Your task to perform on an android device: Clear the shopping cart on costco. Add "razer blade" to the cart on costco, then select checkout. Image 0: 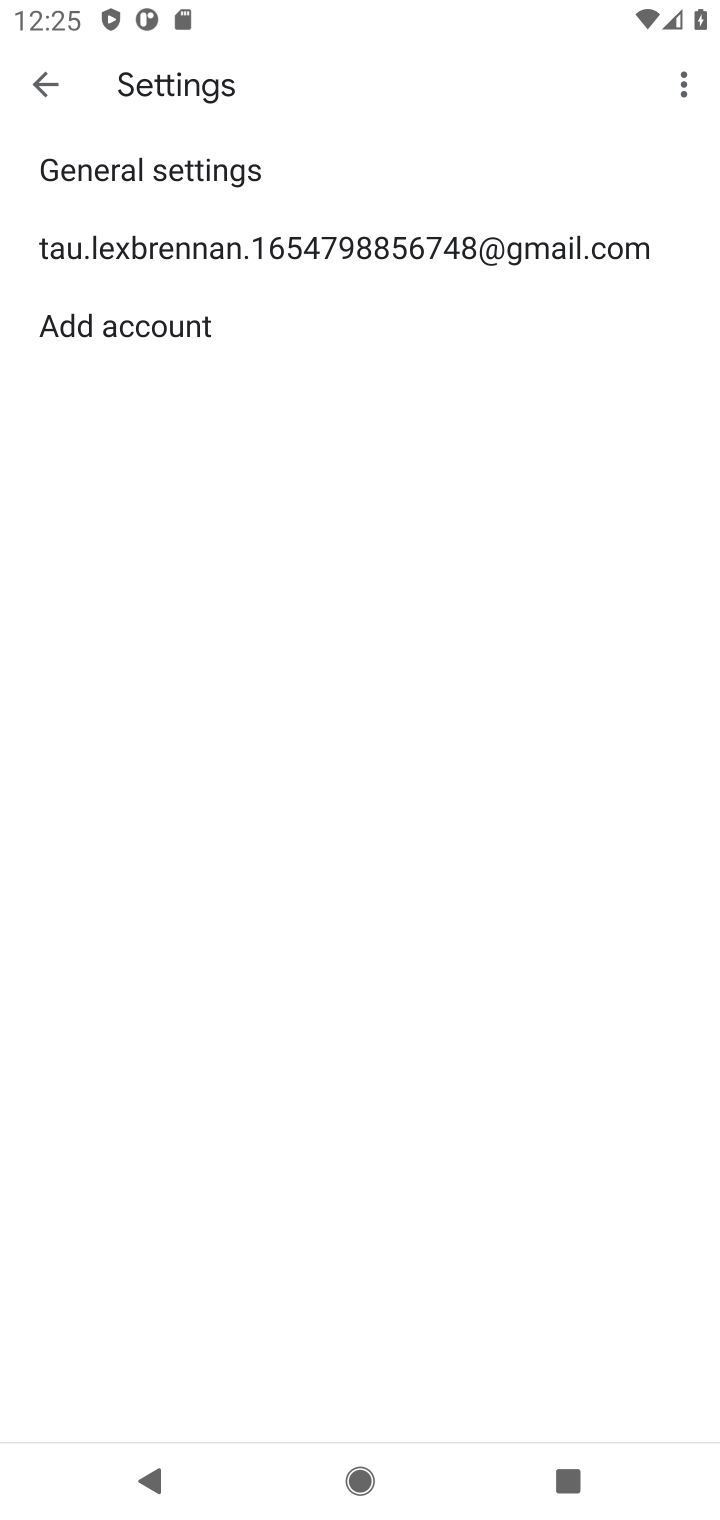
Step 0: press home button
Your task to perform on an android device: Clear the shopping cart on costco. Add "razer blade" to the cart on costco, then select checkout. Image 1: 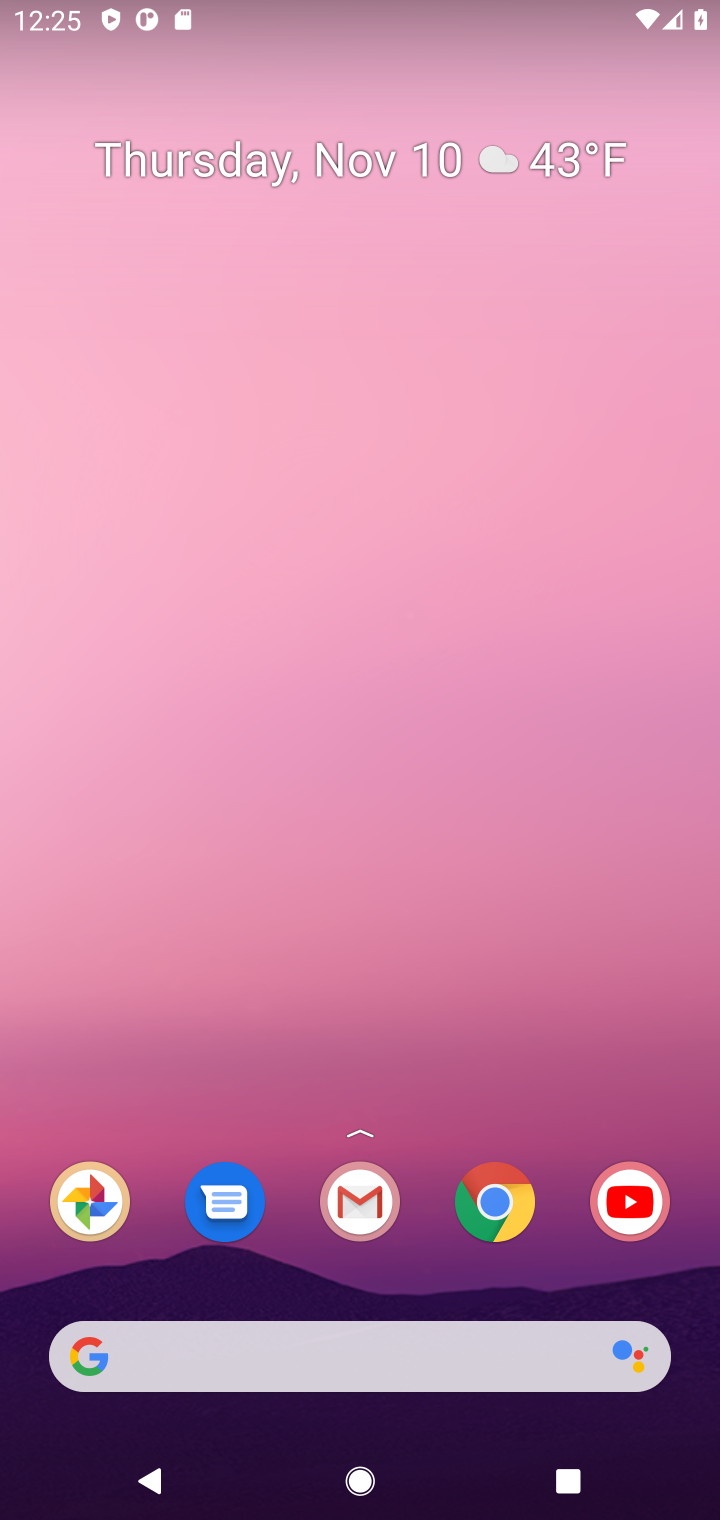
Step 1: click (496, 1216)
Your task to perform on an android device: Clear the shopping cart on costco. Add "razer blade" to the cart on costco, then select checkout. Image 2: 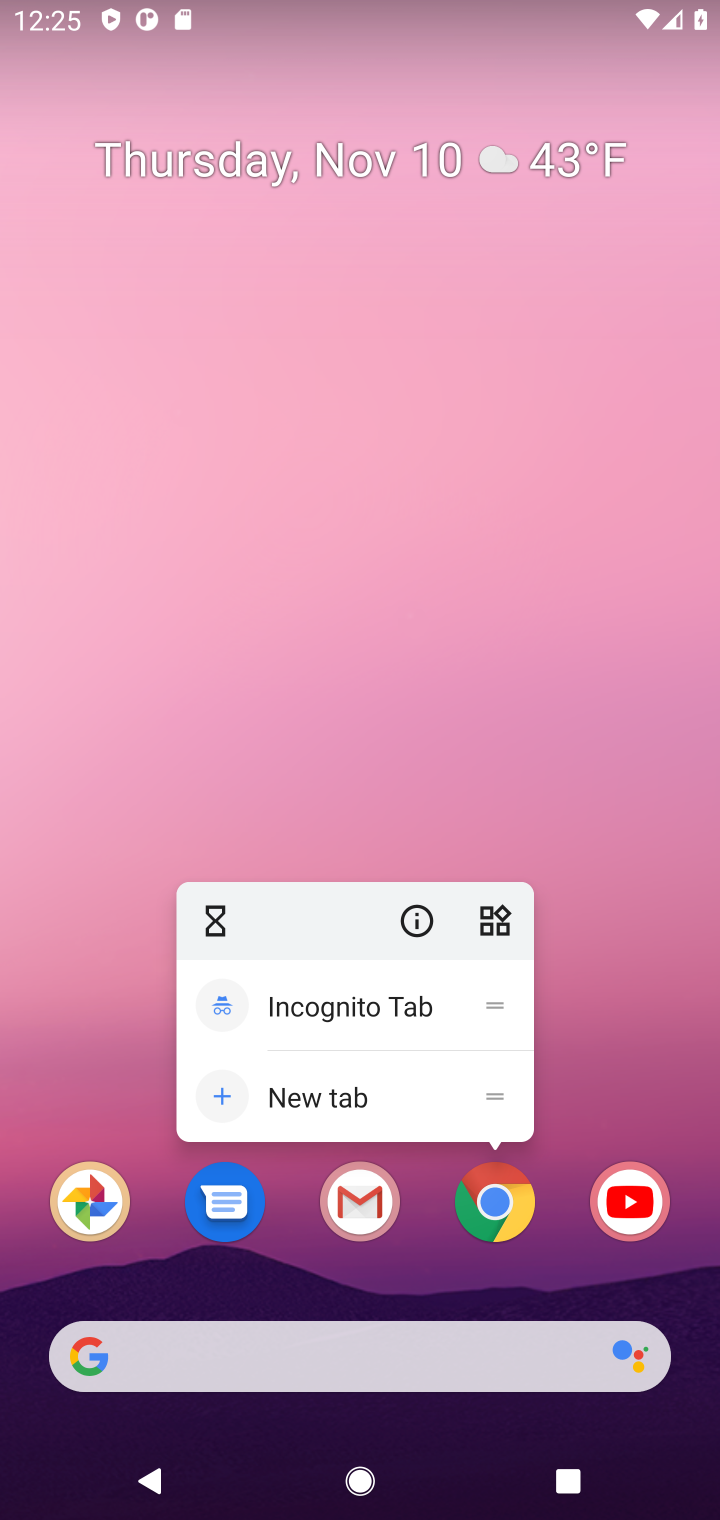
Step 2: click (496, 1216)
Your task to perform on an android device: Clear the shopping cart on costco. Add "razer blade" to the cart on costco, then select checkout. Image 3: 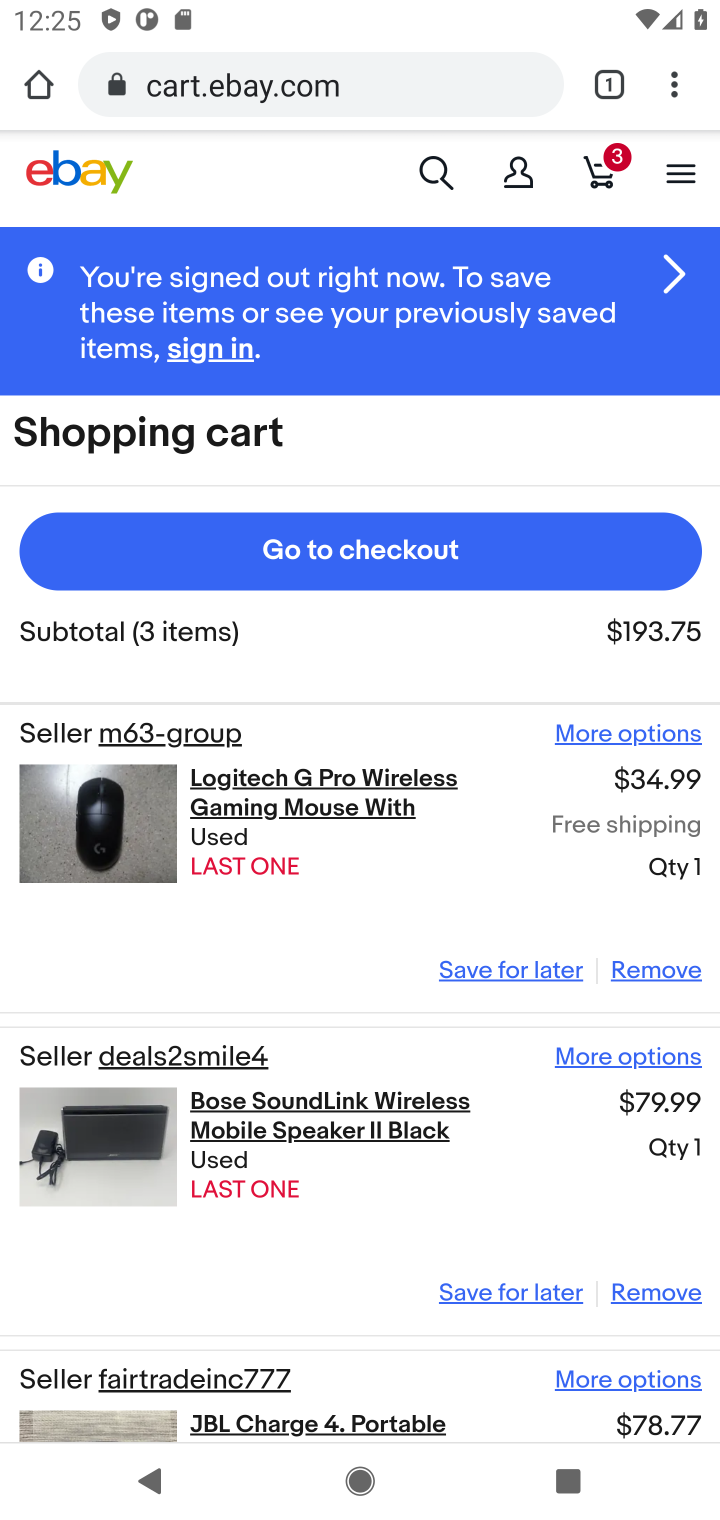
Step 3: click (47, 97)
Your task to perform on an android device: Clear the shopping cart on costco. Add "razer blade" to the cart on costco, then select checkout. Image 4: 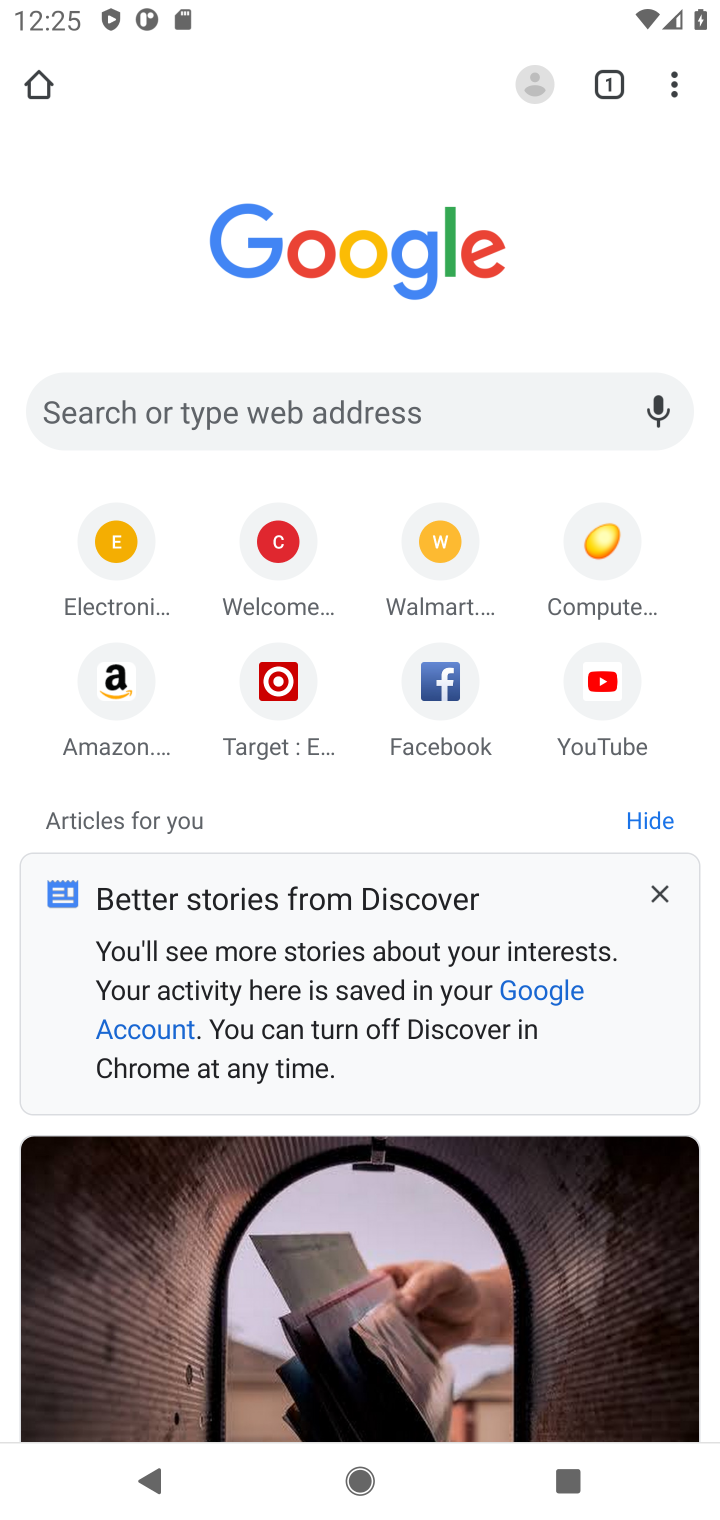
Step 4: click (488, 402)
Your task to perform on an android device: Clear the shopping cart on costco. Add "razer blade" to the cart on costco, then select checkout. Image 5: 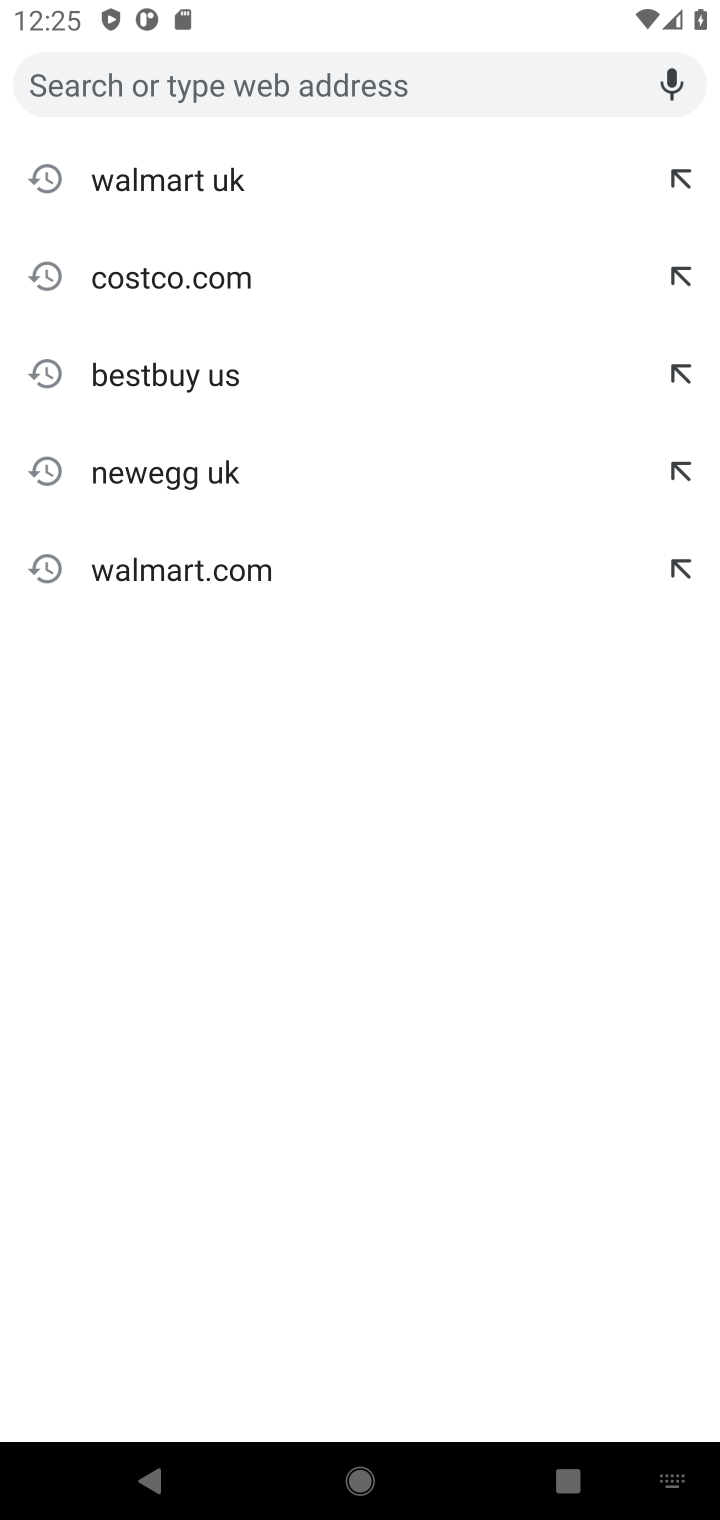
Step 5: click (140, 278)
Your task to perform on an android device: Clear the shopping cart on costco. Add "razer blade" to the cart on costco, then select checkout. Image 6: 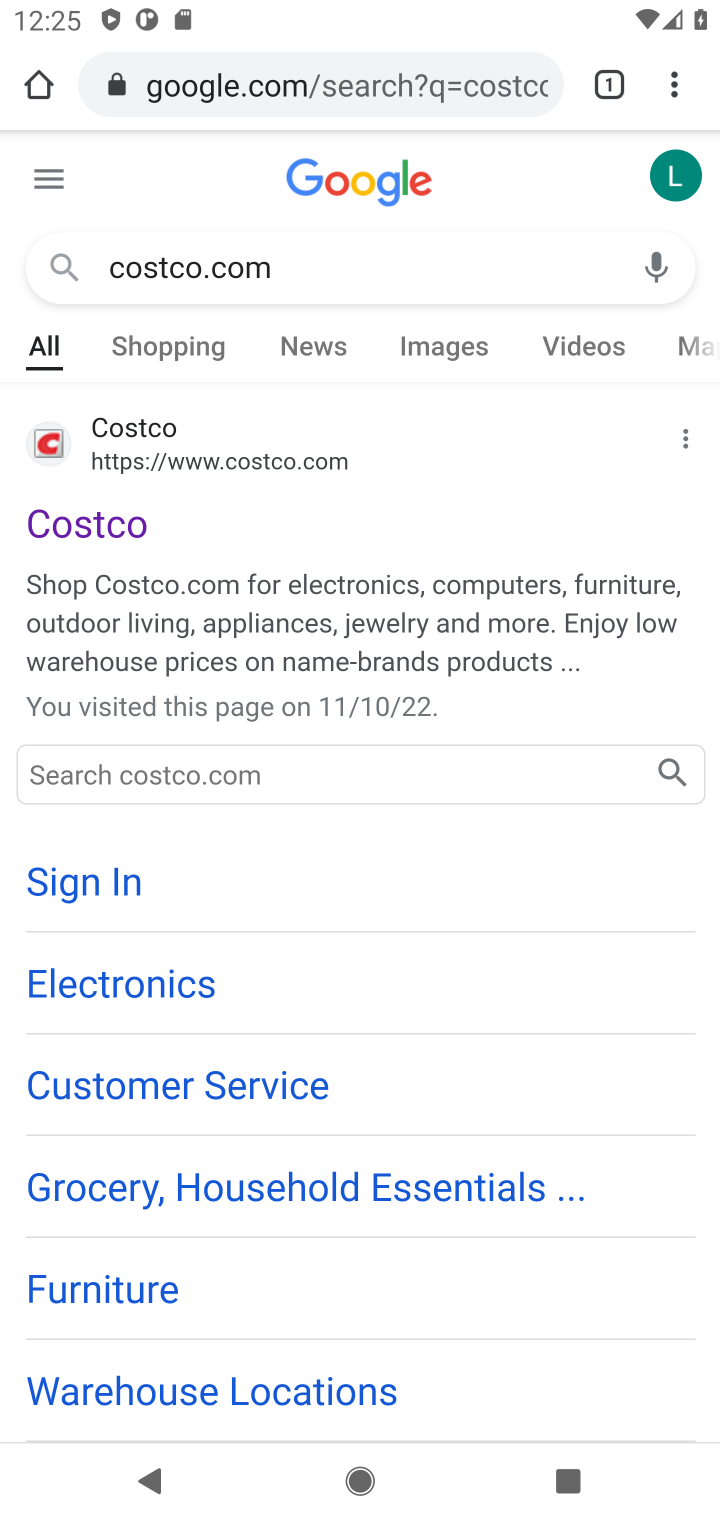
Step 6: click (298, 455)
Your task to perform on an android device: Clear the shopping cart on costco. Add "razer blade" to the cart on costco, then select checkout. Image 7: 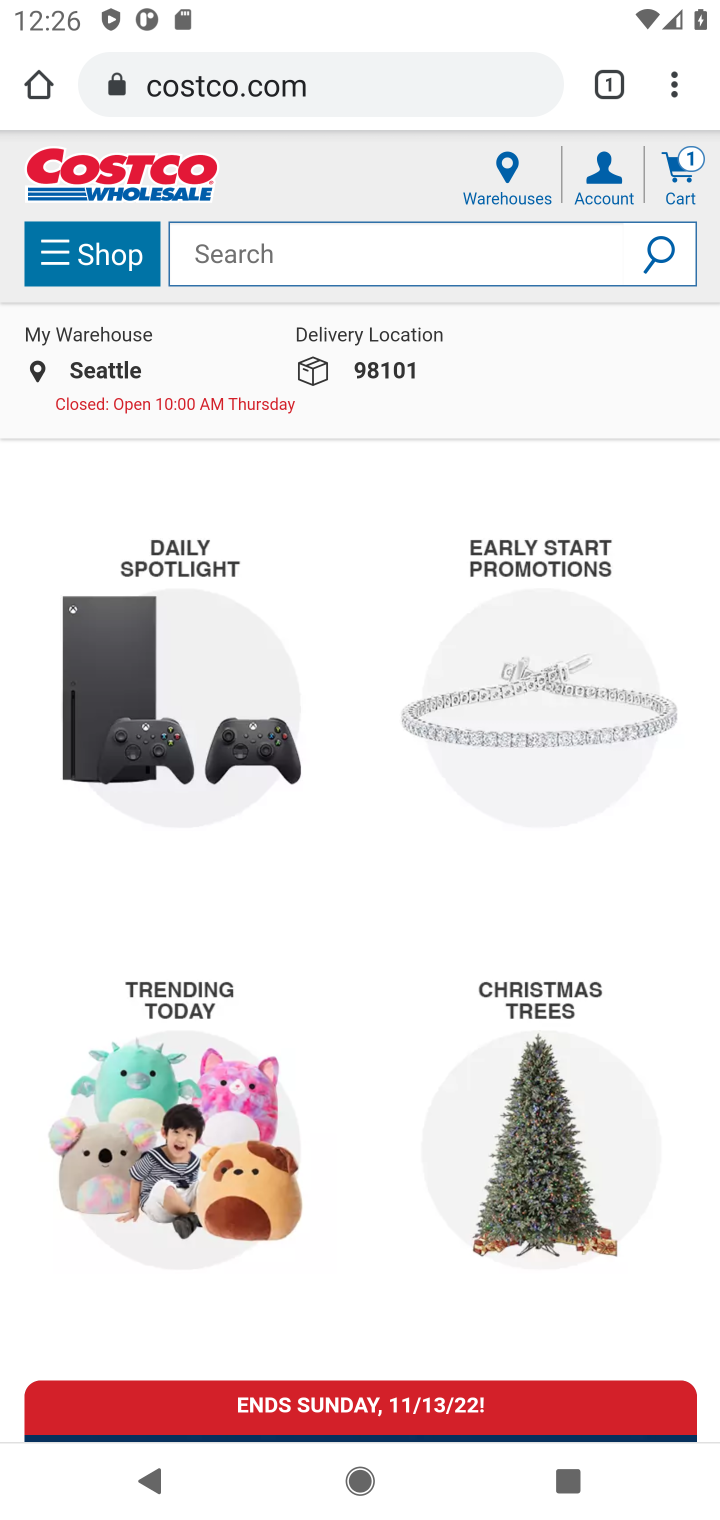
Step 7: click (687, 180)
Your task to perform on an android device: Clear the shopping cart on costco. Add "razer blade" to the cart on costco, then select checkout. Image 8: 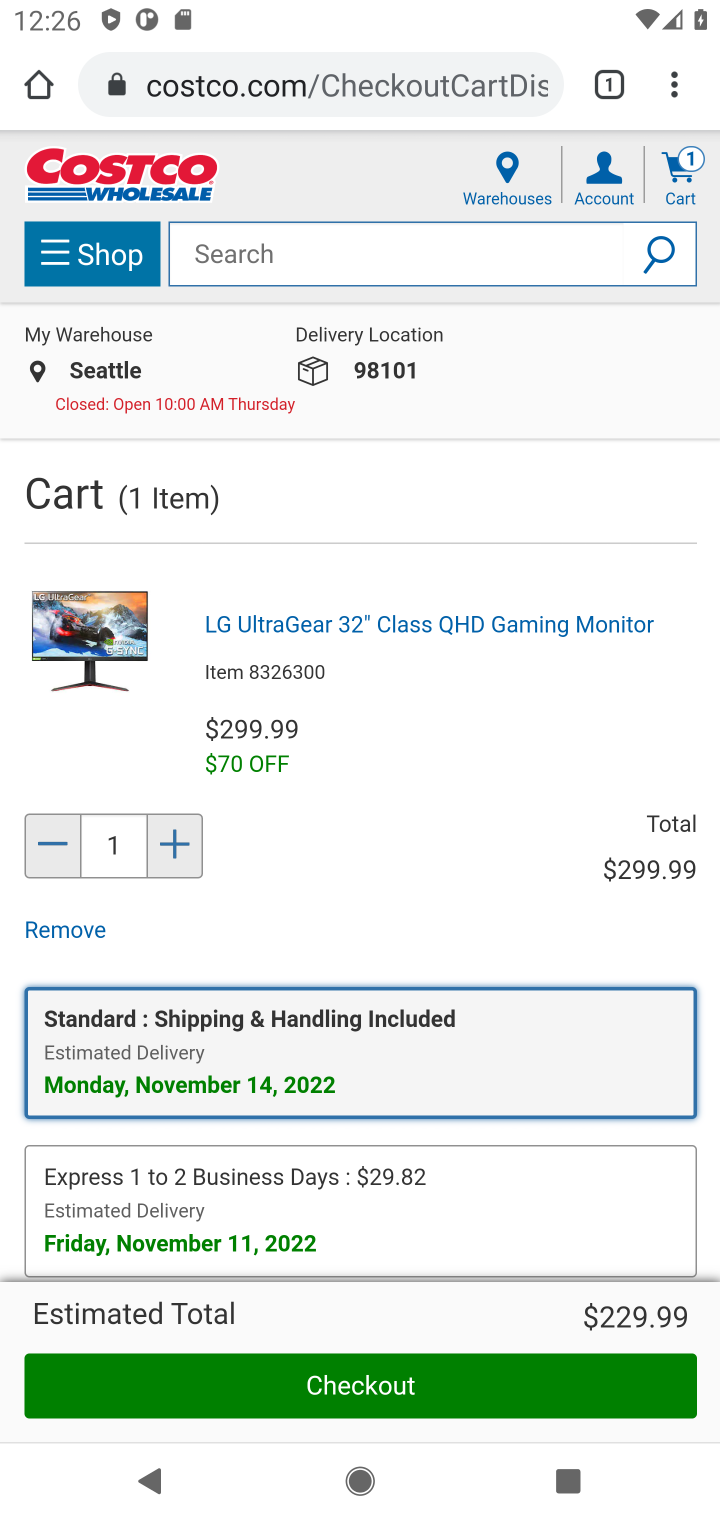
Step 8: click (56, 850)
Your task to perform on an android device: Clear the shopping cart on costco. Add "razer blade" to the cart on costco, then select checkout. Image 9: 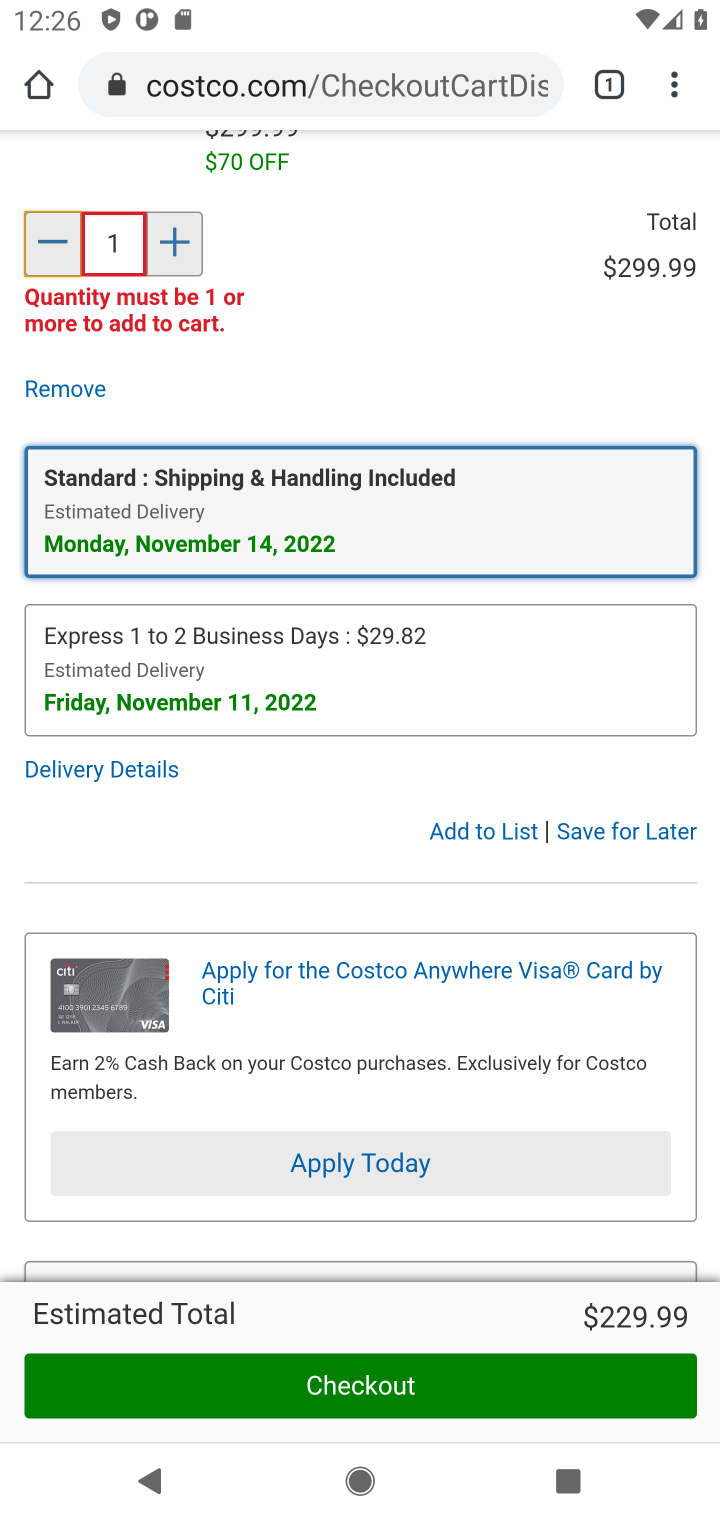
Step 9: click (54, 255)
Your task to perform on an android device: Clear the shopping cart on costco. Add "razer blade" to the cart on costco, then select checkout. Image 10: 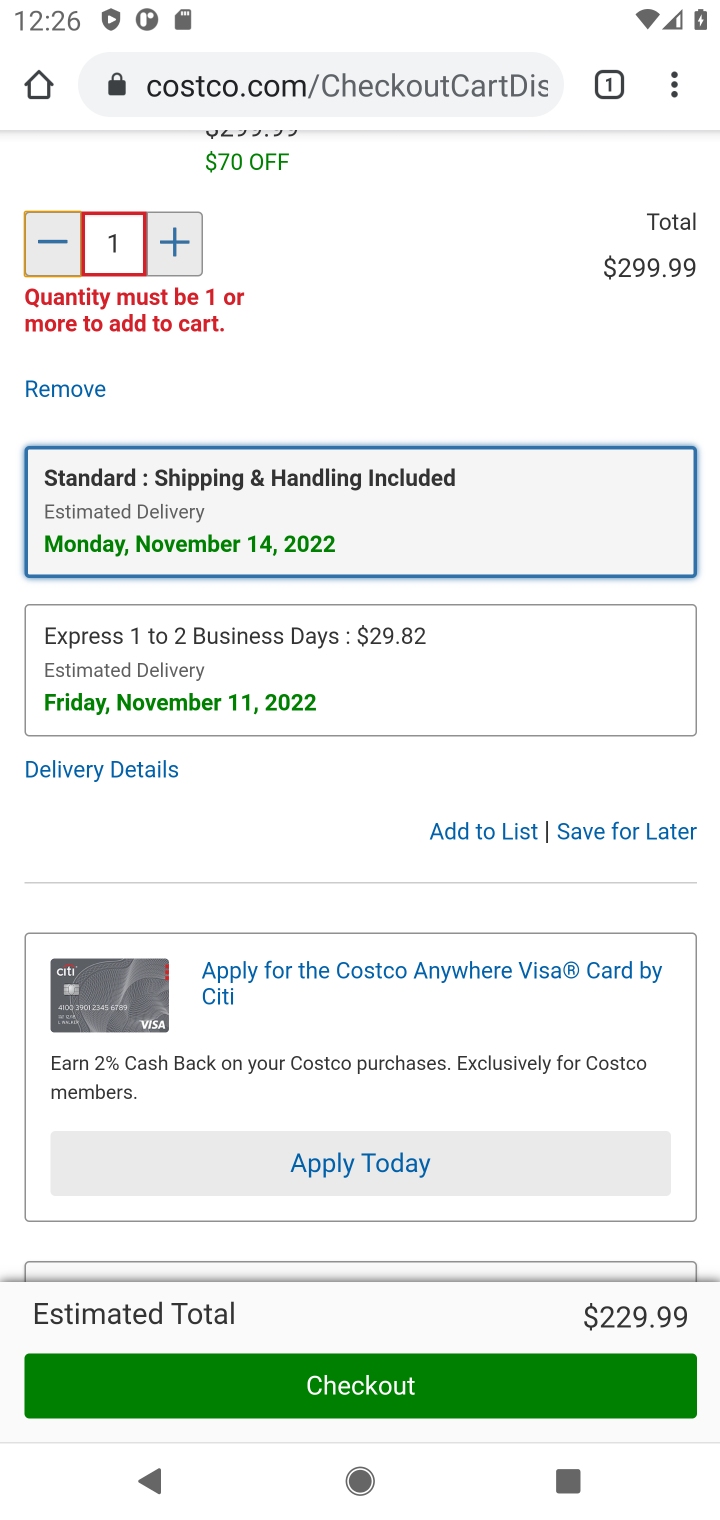
Step 10: drag from (480, 315) to (580, 1170)
Your task to perform on an android device: Clear the shopping cart on costco. Add "razer blade" to the cart on costco, then select checkout. Image 11: 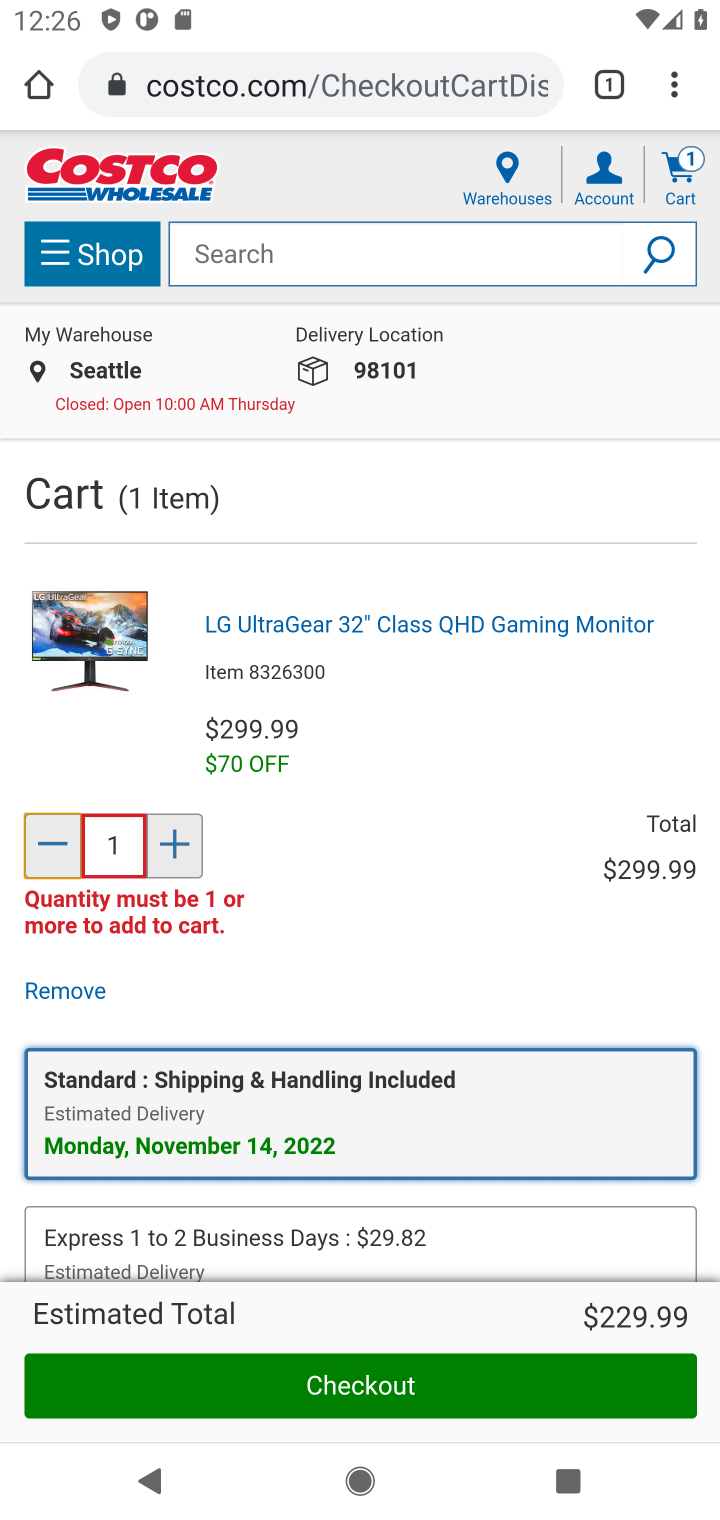
Step 11: click (49, 490)
Your task to perform on an android device: Clear the shopping cart on costco. Add "razer blade" to the cart on costco, then select checkout. Image 12: 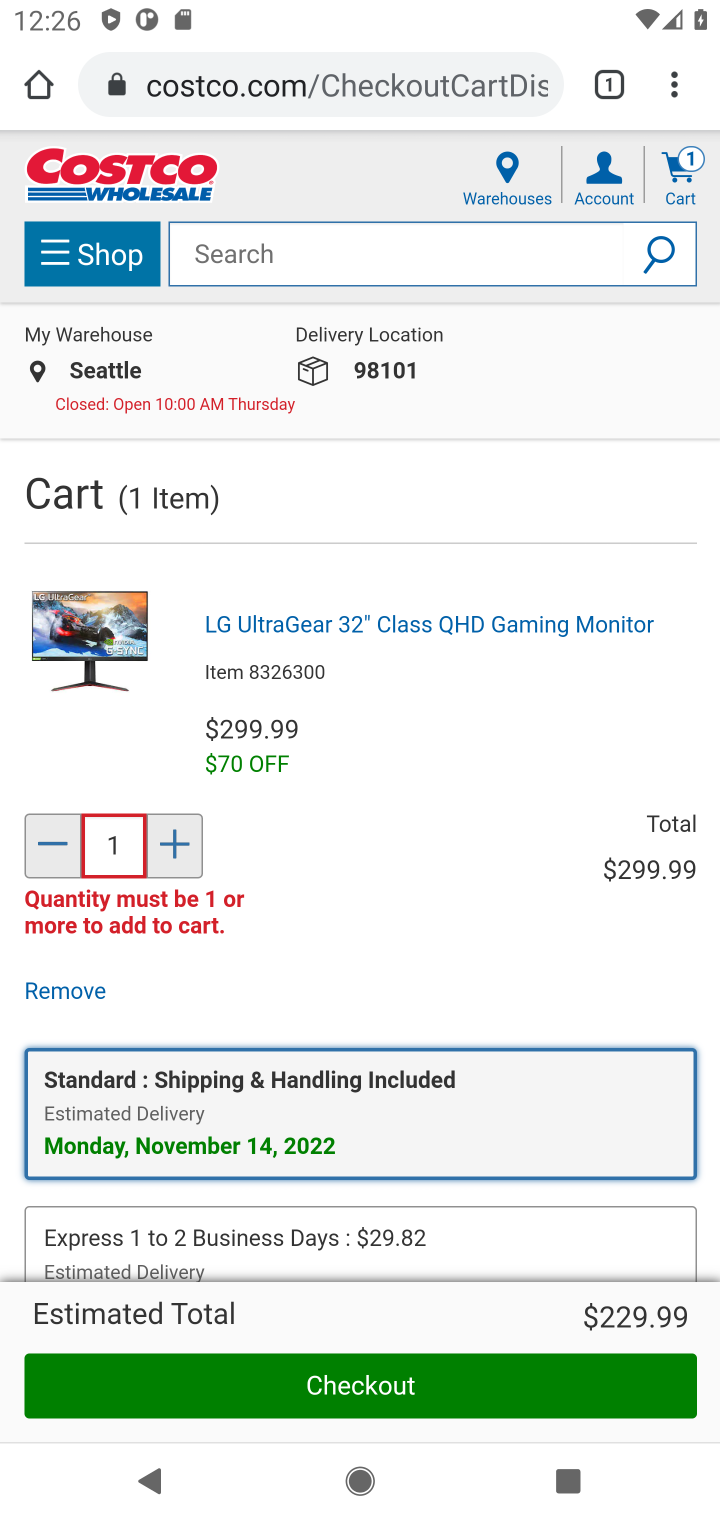
Step 12: click (55, 983)
Your task to perform on an android device: Clear the shopping cart on costco. Add "razer blade" to the cart on costco, then select checkout. Image 13: 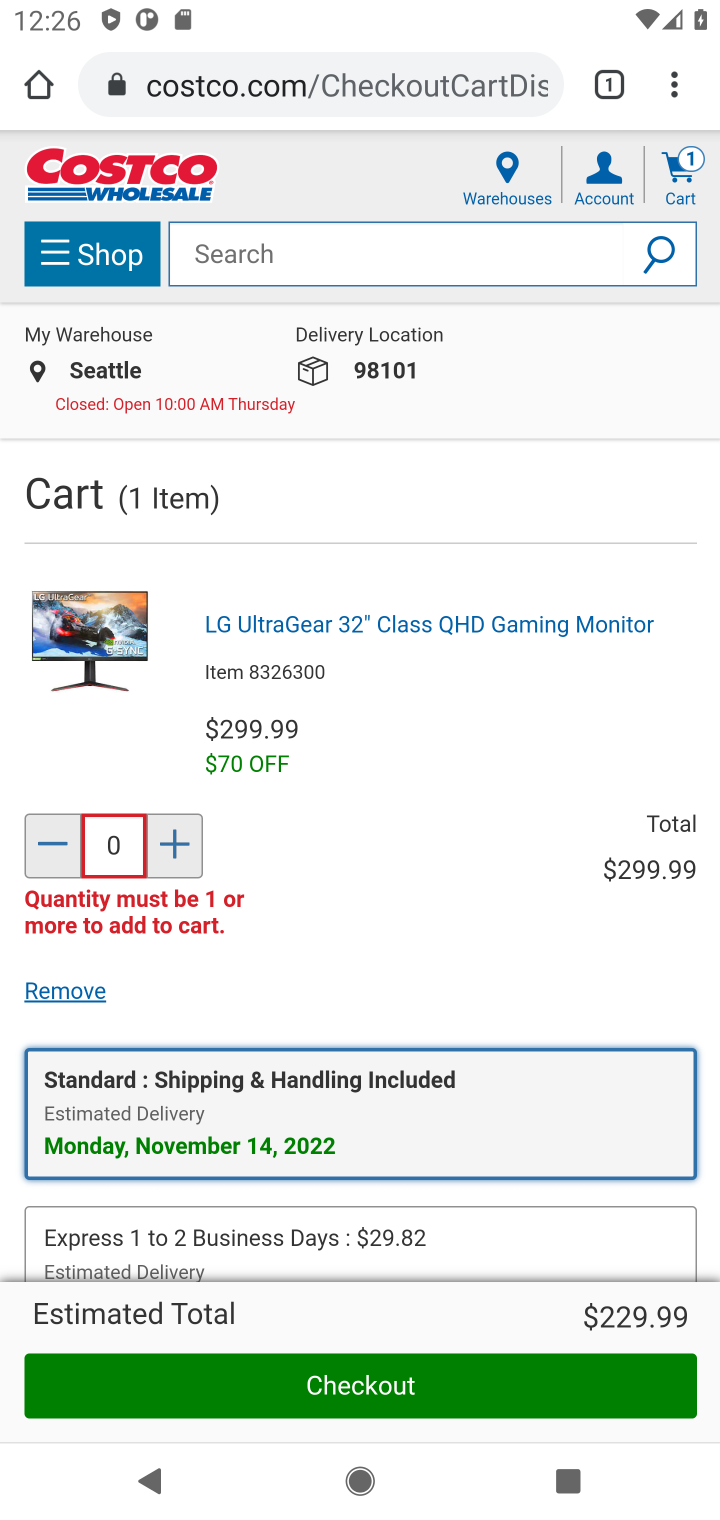
Step 13: click (67, 984)
Your task to perform on an android device: Clear the shopping cart on costco. Add "razer blade" to the cart on costco, then select checkout. Image 14: 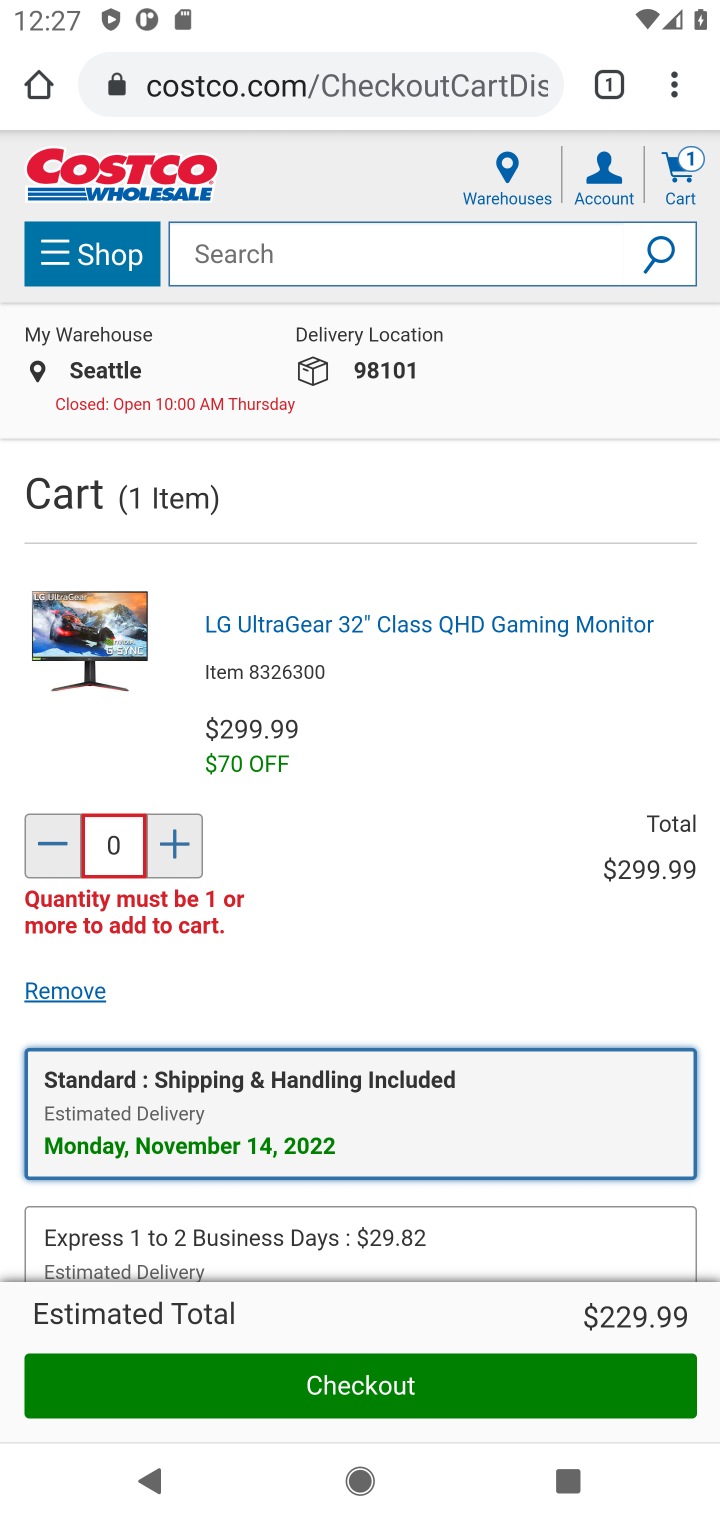
Step 14: click (89, 990)
Your task to perform on an android device: Clear the shopping cart on costco. Add "razer blade" to the cart on costco, then select checkout. Image 15: 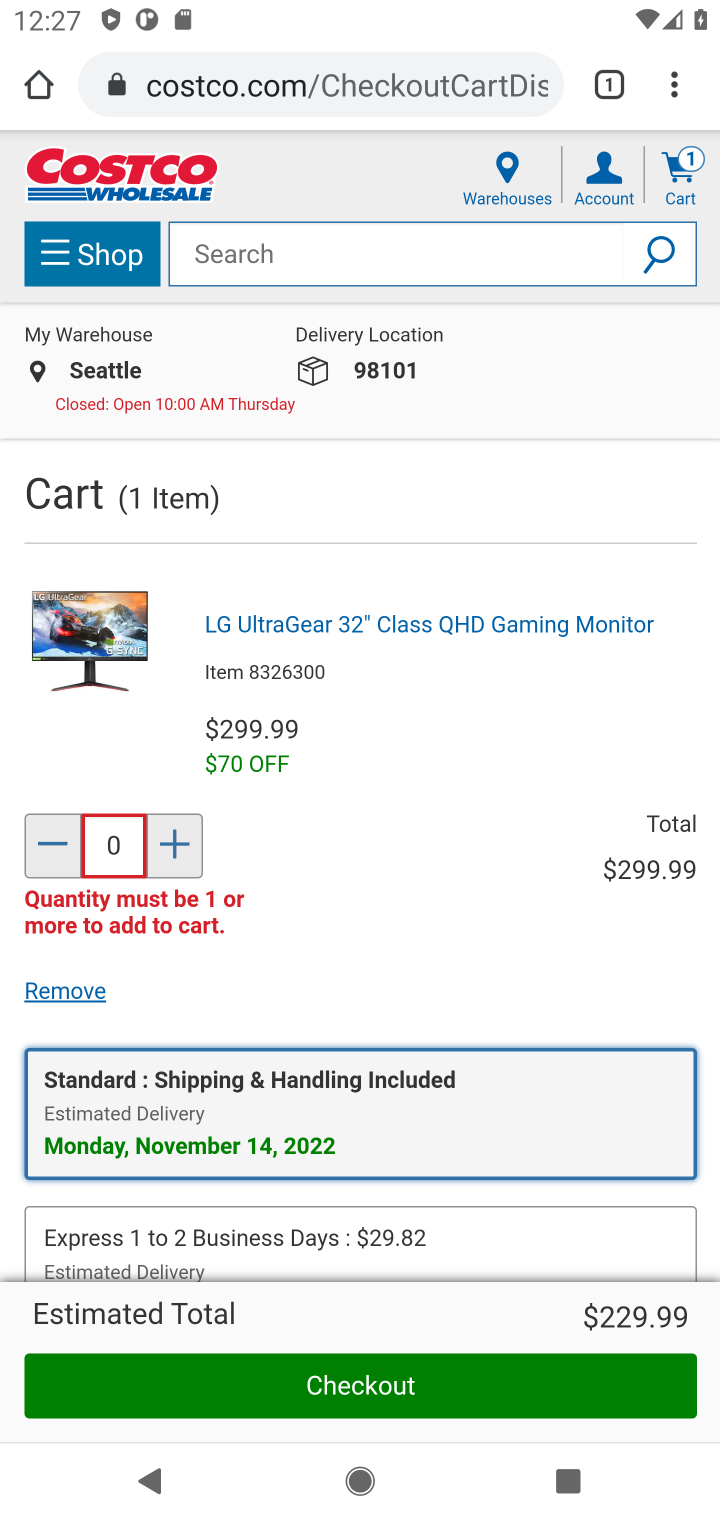
Step 15: click (173, 847)
Your task to perform on an android device: Clear the shopping cart on costco. Add "razer blade" to the cart on costco, then select checkout. Image 16: 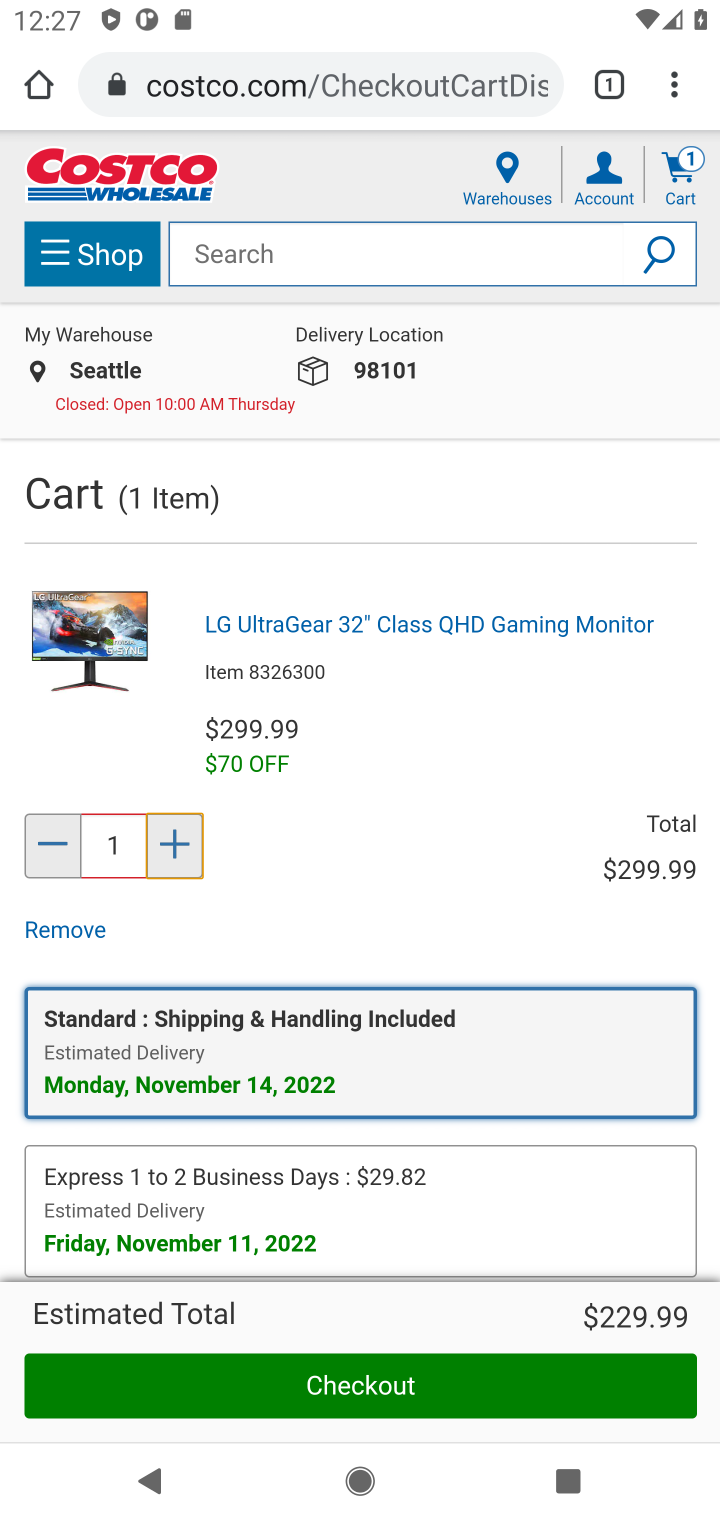
Step 16: click (183, 842)
Your task to perform on an android device: Clear the shopping cart on costco. Add "razer blade" to the cart on costco, then select checkout. Image 17: 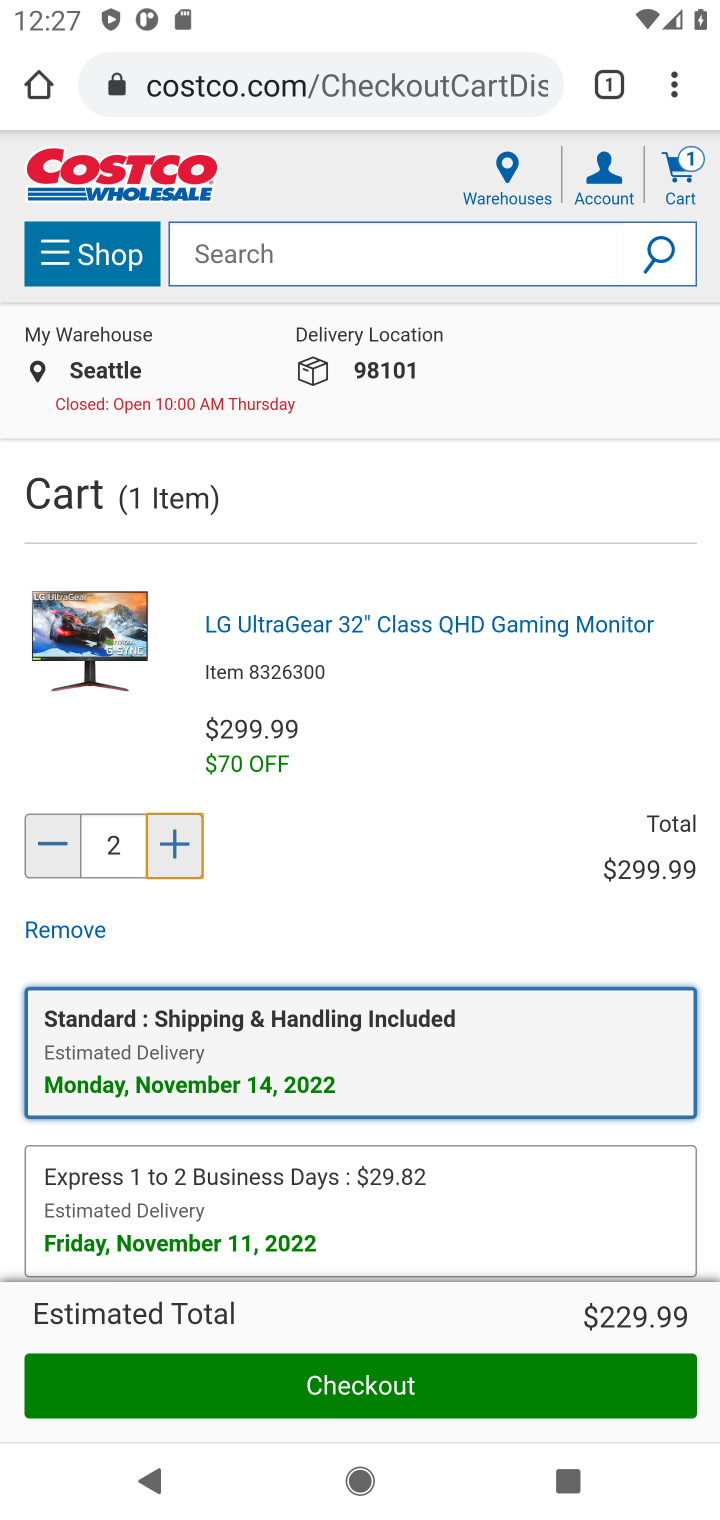
Step 17: click (52, 847)
Your task to perform on an android device: Clear the shopping cart on costco. Add "razer blade" to the cart on costco, then select checkout. Image 18: 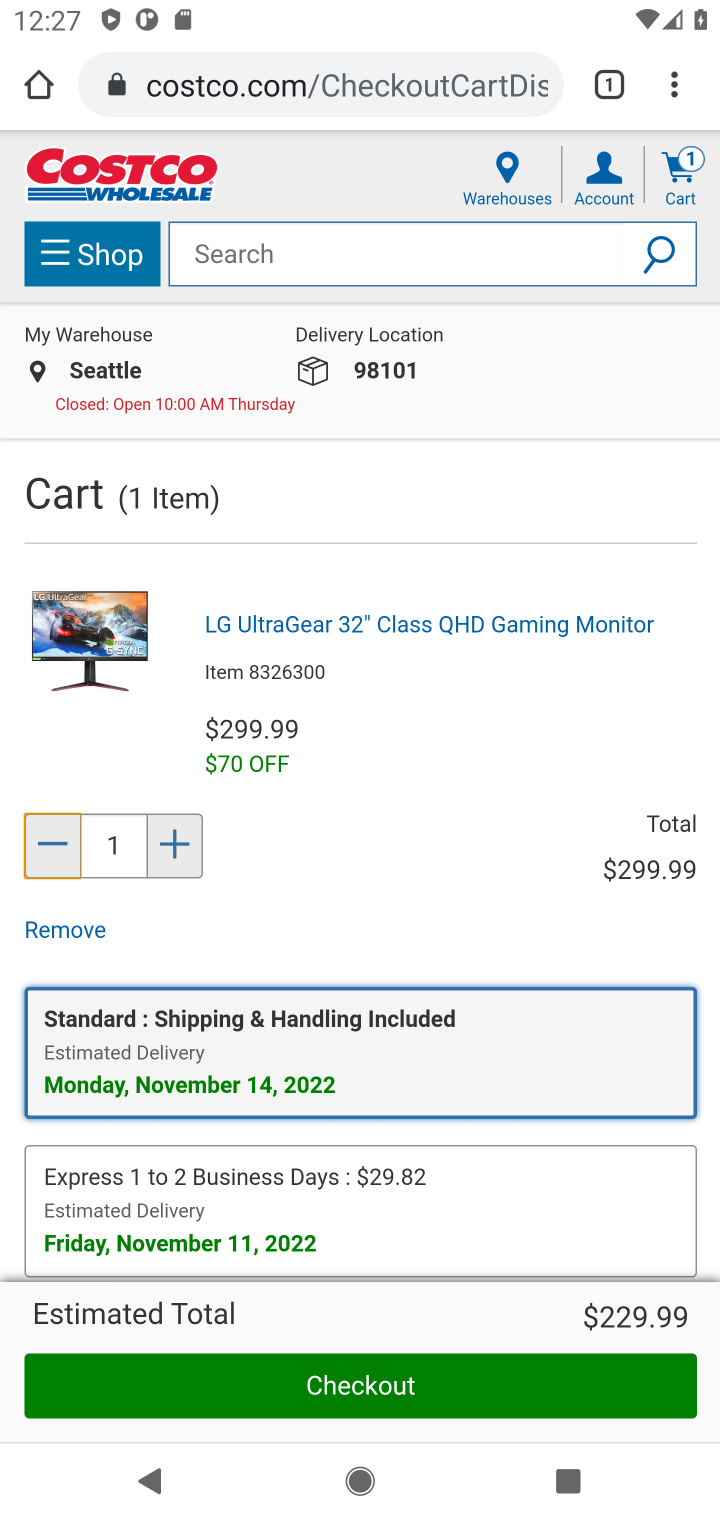
Step 18: click (75, 929)
Your task to perform on an android device: Clear the shopping cart on costco. Add "razer blade" to the cart on costco, then select checkout. Image 19: 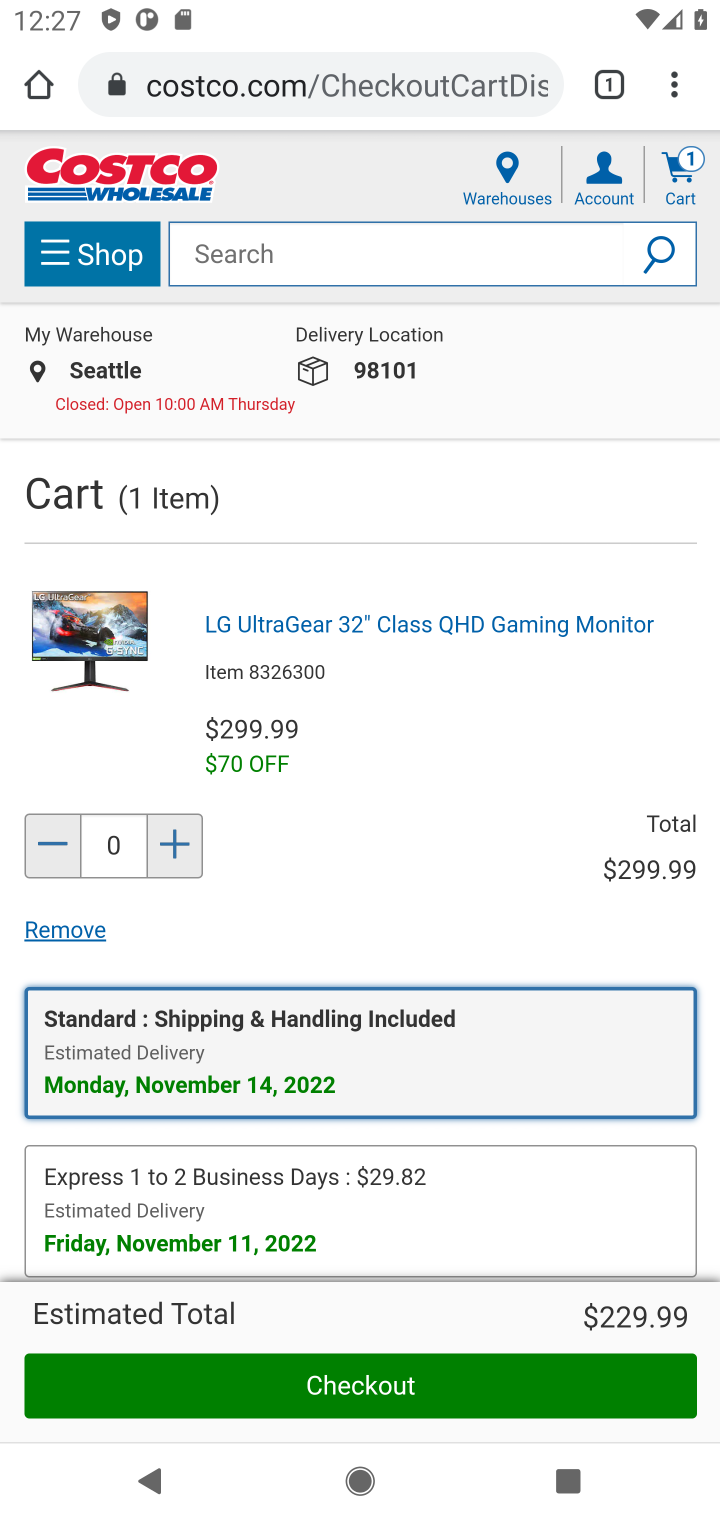
Step 19: click (75, 928)
Your task to perform on an android device: Clear the shopping cart on costco. Add "razer blade" to the cart on costco, then select checkout. Image 20: 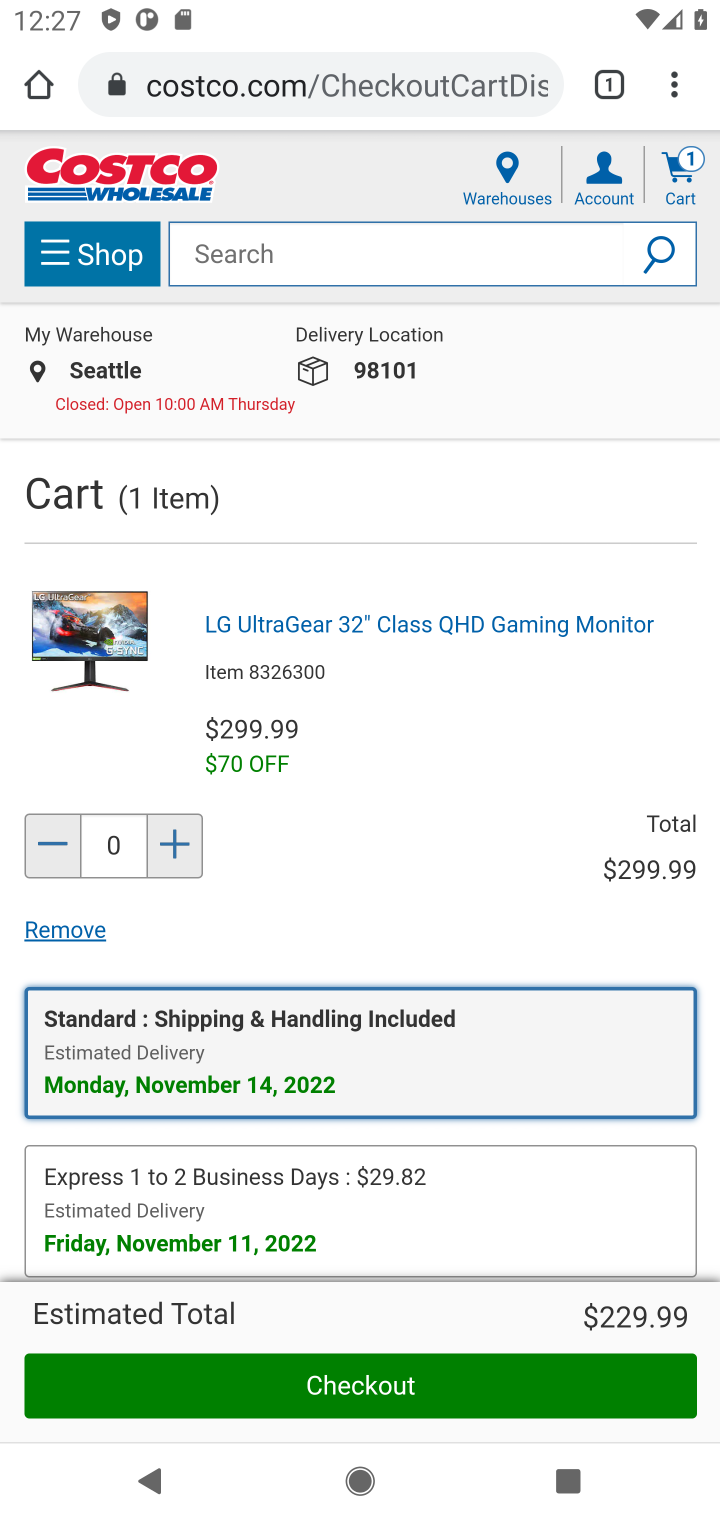
Step 20: click (75, 928)
Your task to perform on an android device: Clear the shopping cart on costco. Add "razer blade" to the cart on costco, then select checkout. Image 21: 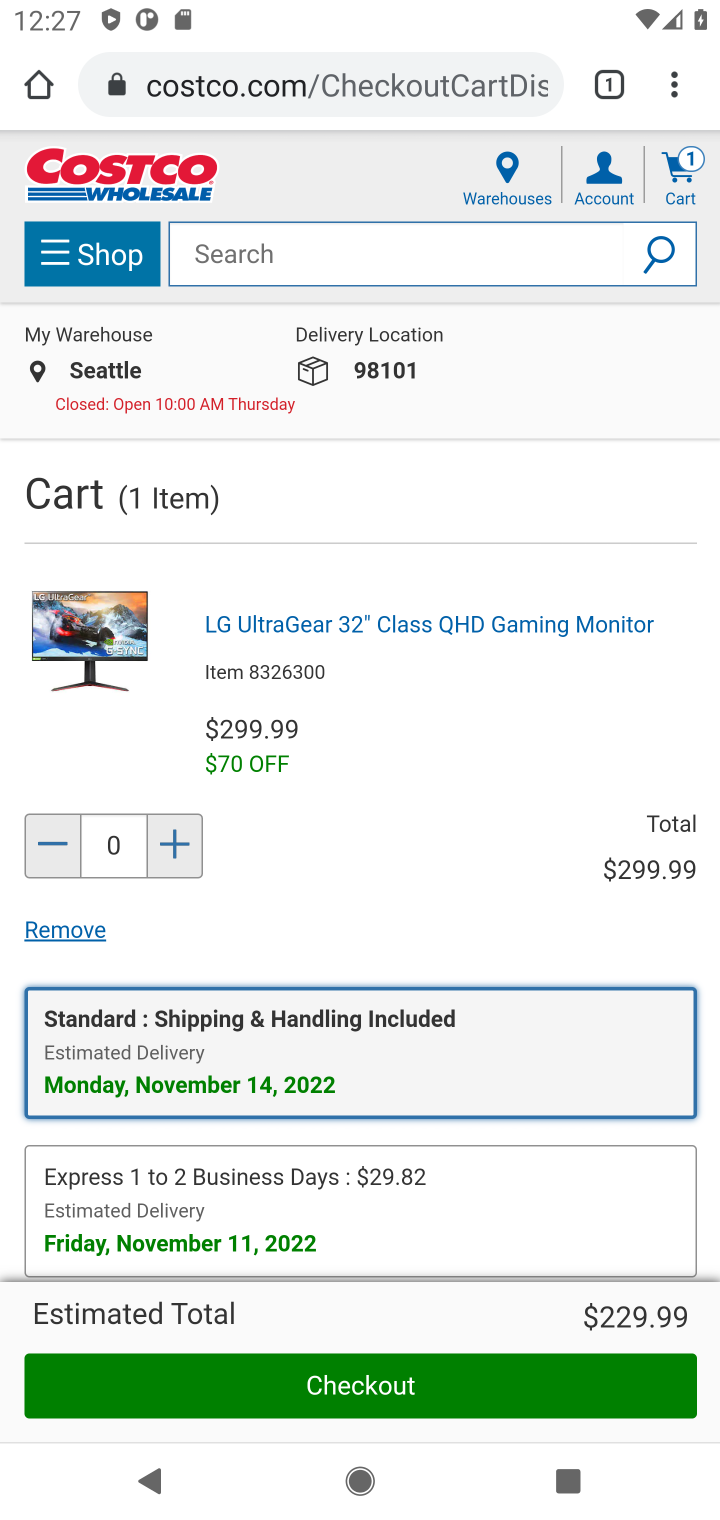
Step 21: click (75, 928)
Your task to perform on an android device: Clear the shopping cart on costco. Add "razer blade" to the cart on costco, then select checkout. Image 22: 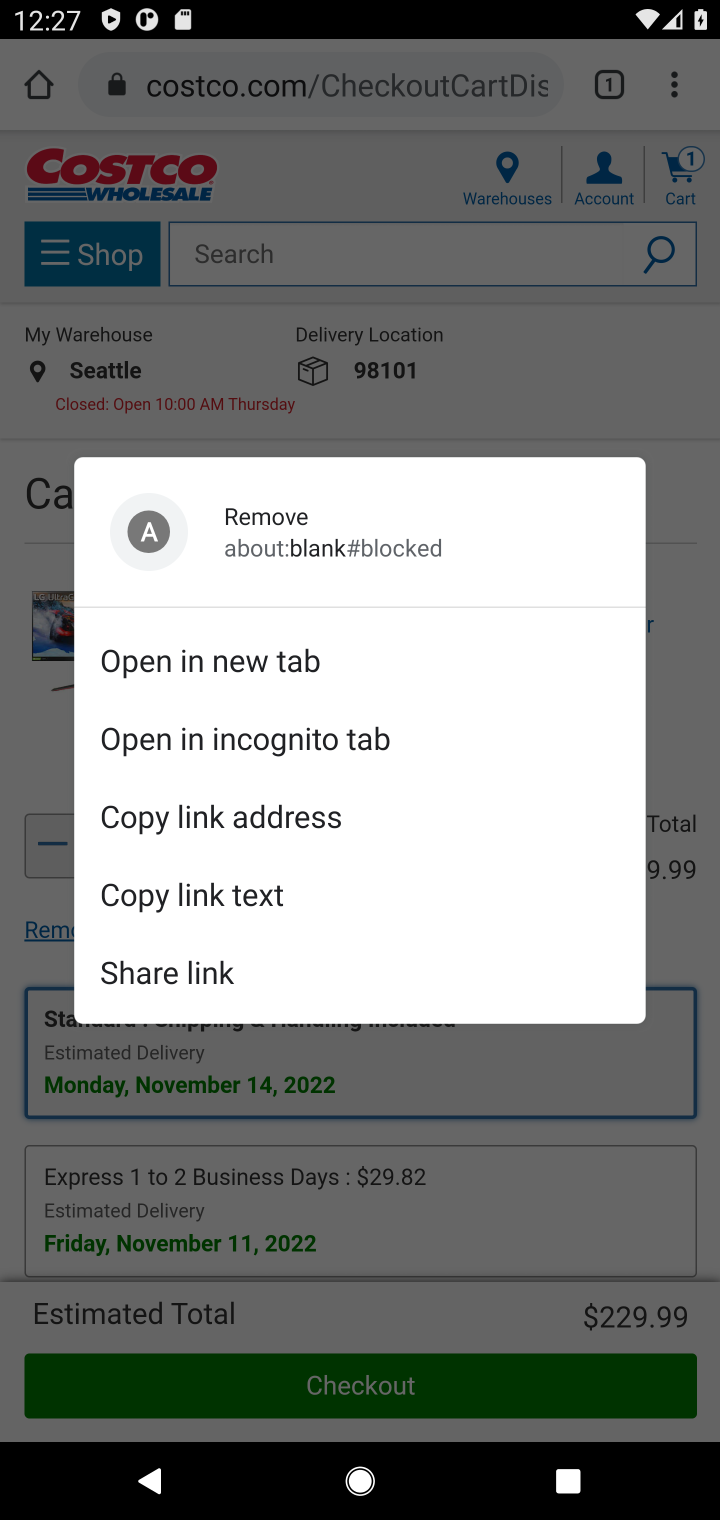
Step 22: task complete